Your task to perform on an android device: Open calendar and show me the first week of next month Image 0: 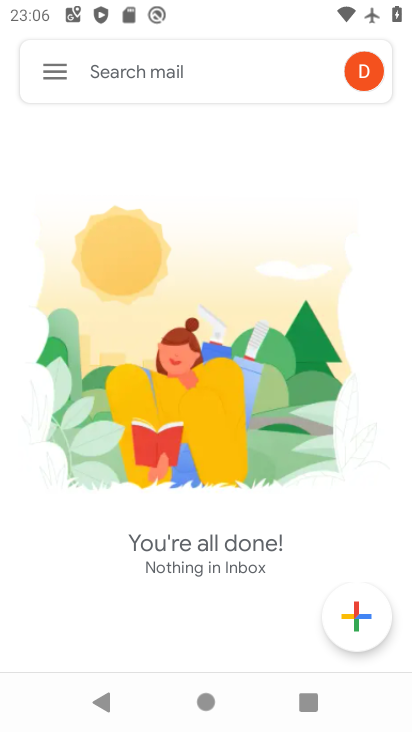
Step 0: press home button
Your task to perform on an android device: Open calendar and show me the first week of next month Image 1: 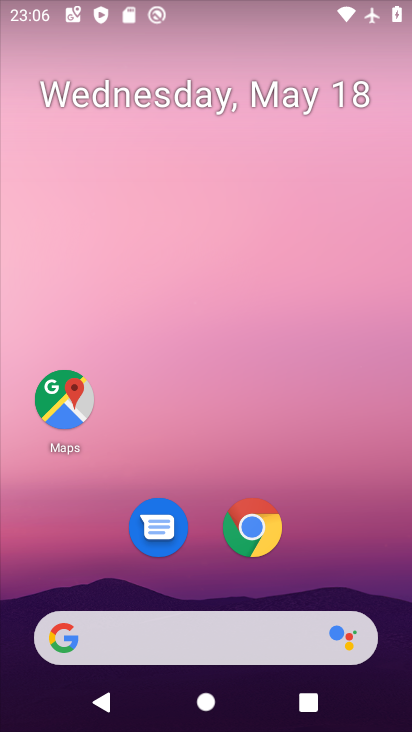
Step 1: drag from (368, 551) to (310, 99)
Your task to perform on an android device: Open calendar and show me the first week of next month Image 2: 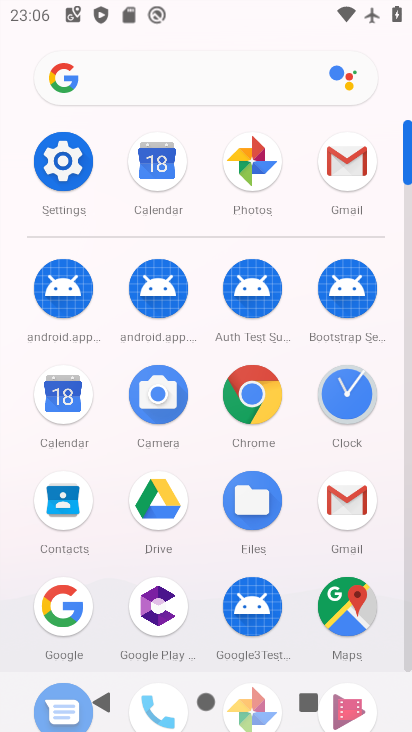
Step 2: click (169, 143)
Your task to perform on an android device: Open calendar and show me the first week of next month Image 3: 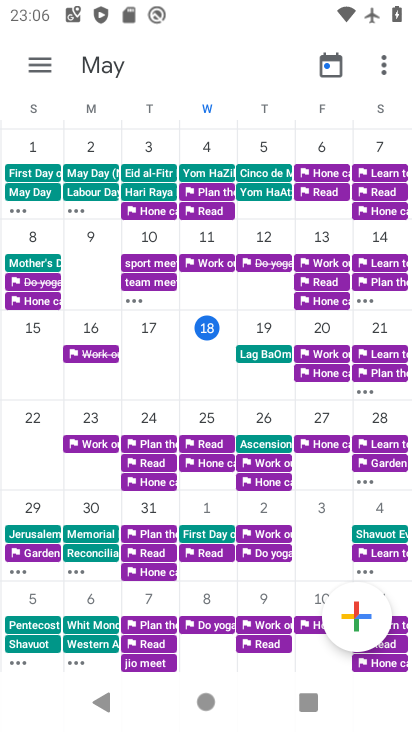
Step 3: task complete